Your task to perform on an android device: What is the recent news? Image 0: 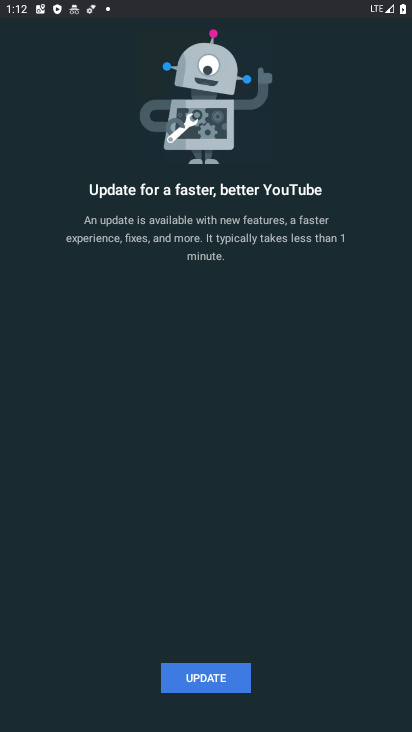
Step 0: press home button
Your task to perform on an android device: What is the recent news? Image 1: 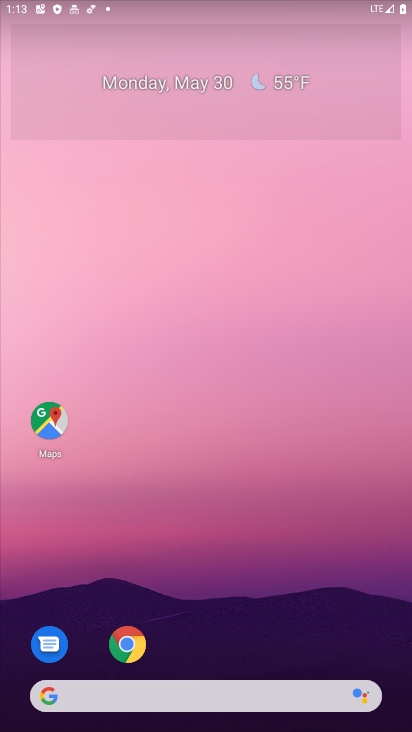
Step 1: drag from (307, 606) to (195, 217)
Your task to perform on an android device: What is the recent news? Image 2: 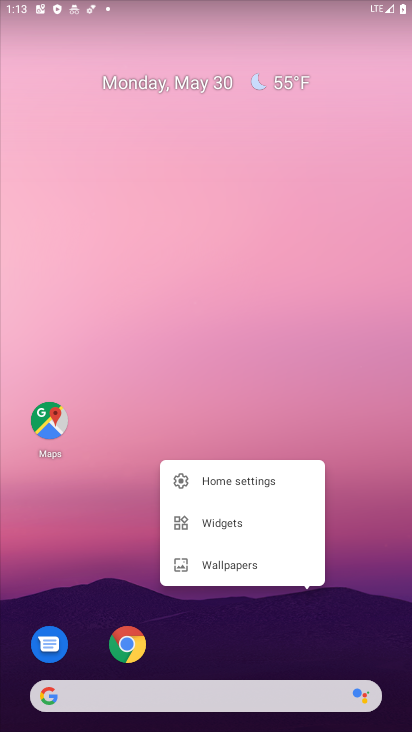
Step 2: click (195, 217)
Your task to perform on an android device: What is the recent news? Image 3: 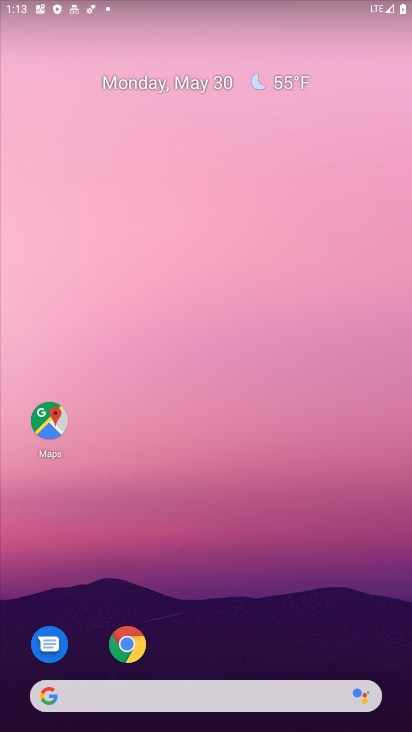
Step 3: click (240, 700)
Your task to perform on an android device: What is the recent news? Image 4: 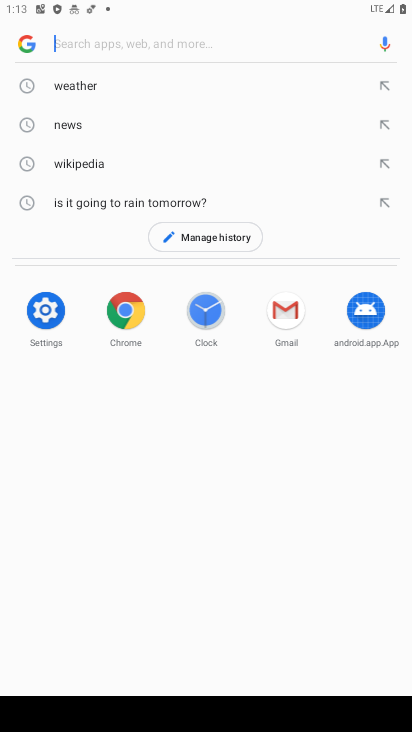
Step 4: click (121, 130)
Your task to perform on an android device: What is the recent news? Image 5: 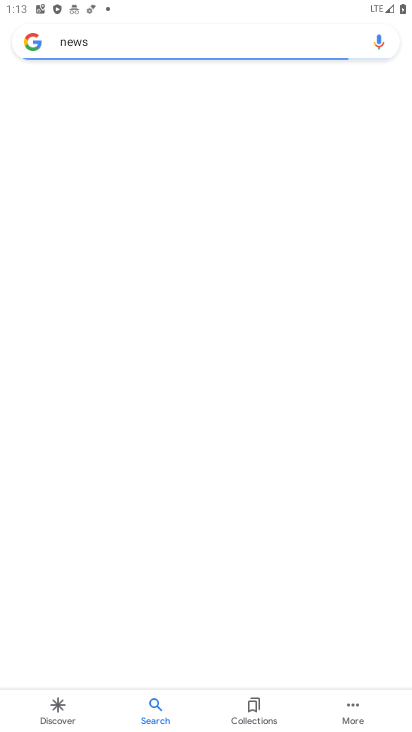
Step 5: task complete